Your task to perform on an android device: Search for pizza restaurants on Maps Image 0: 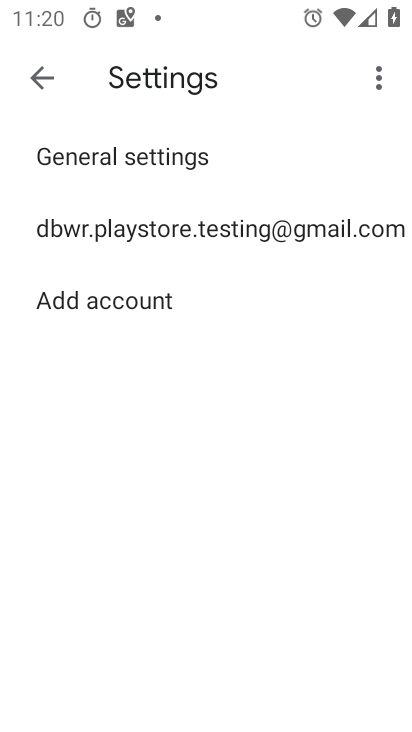
Step 0: press home button
Your task to perform on an android device: Search for pizza restaurants on Maps Image 1: 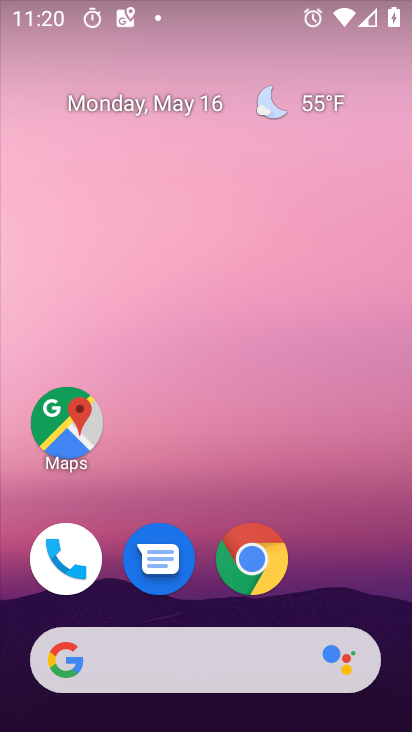
Step 1: click (63, 415)
Your task to perform on an android device: Search for pizza restaurants on Maps Image 2: 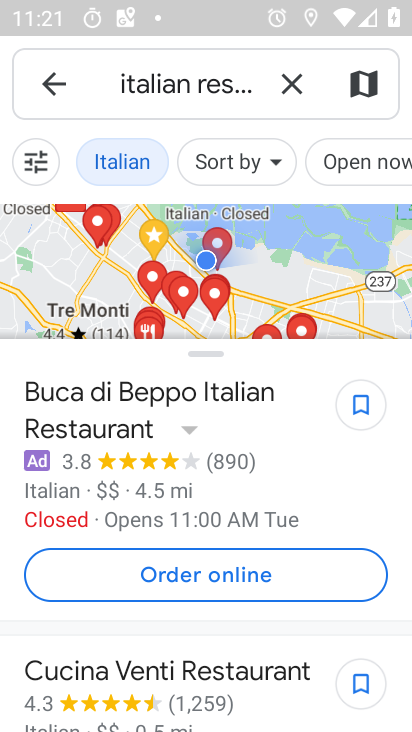
Step 2: click (156, 91)
Your task to perform on an android device: Search for pizza restaurants on Maps Image 3: 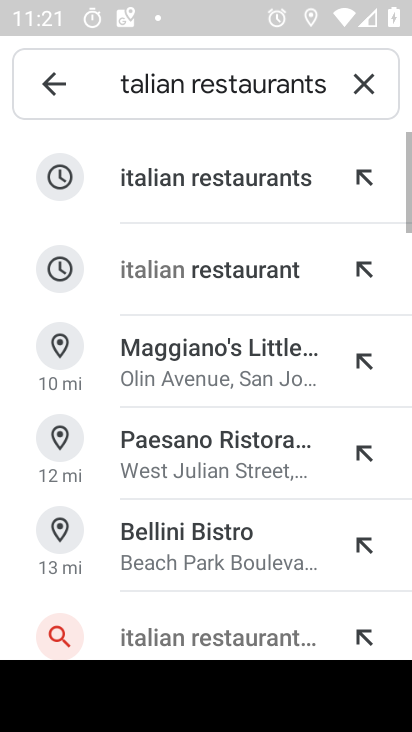
Step 3: click (368, 77)
Your task to perform on an android device: Search for pizza restaurants on Maps Image 4: 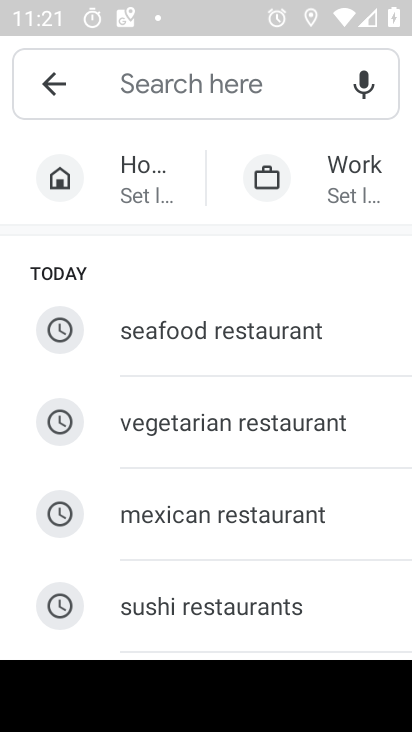
Step 4: type "pizza restaurants"
Your task to perform on an android device: Search for pizza restaurants on Maps Image 5: 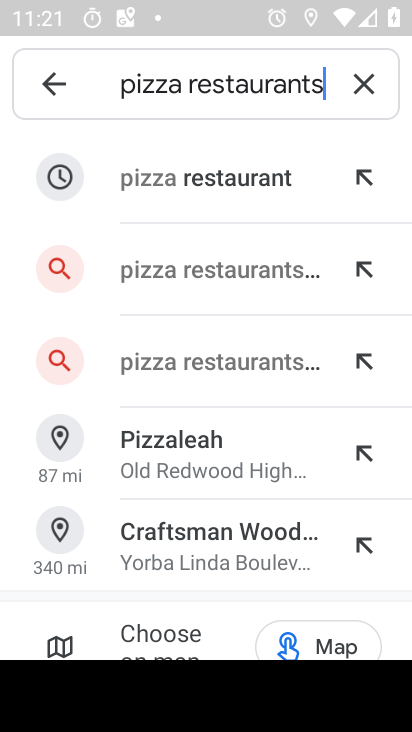
Step 5: press enter
Your task to perform on an android device: Search for pizza restaurants on Maps Image 6: 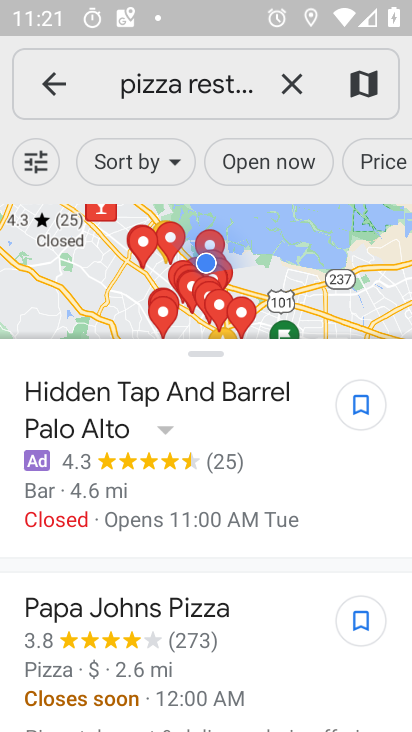
Step 6: task complete